Your task to perform on an android device: snooze an email in the gmail app Image 0: 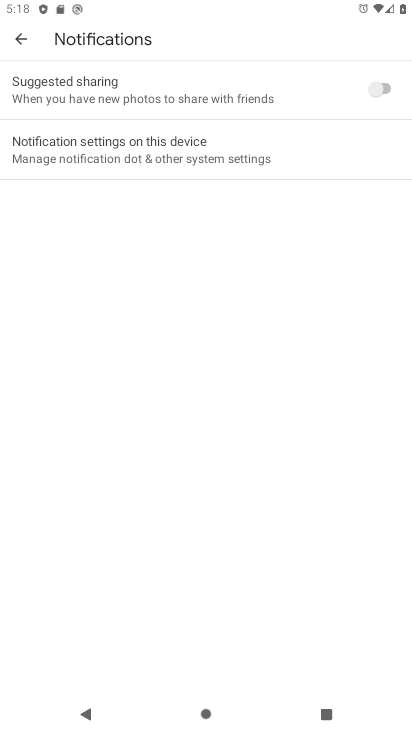
Step 0: press home button
Your task to perform on an android device: snooze an email in the gmail app Image 1: 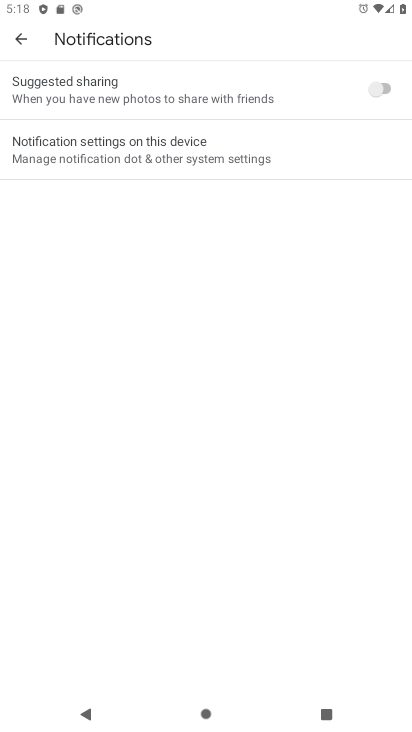
Step 1: drag from (384, 621) to (189, 0)
Your task to perform on an android device: snooze an email in the gmail app Image 2: 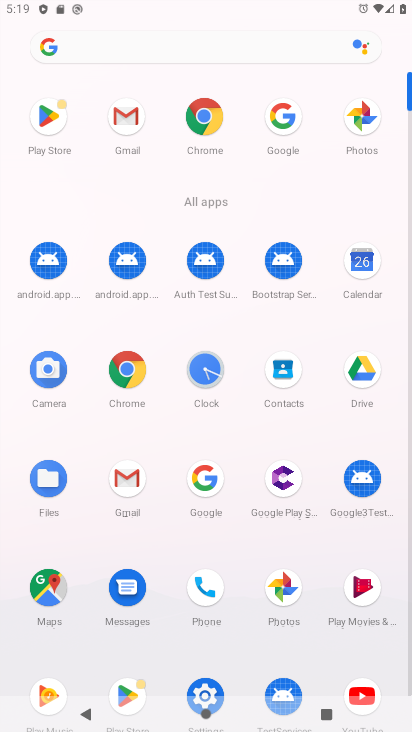
Step 2: click (127, 500)
Your task to perform on an android device: snooze an email in the gmail app Image 3: 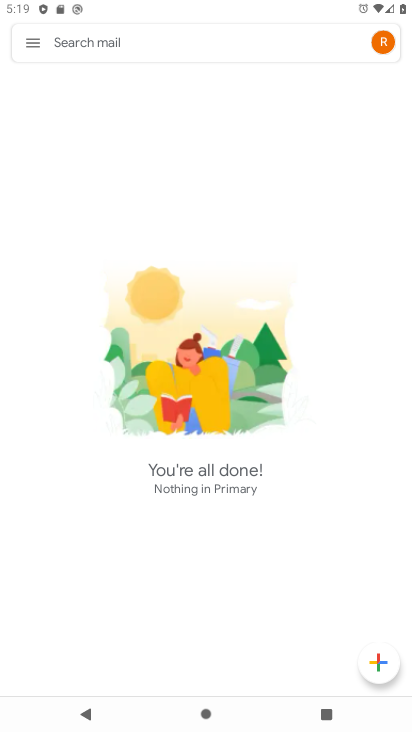
Step 3: task complete